Your task to perform on an android device: open chrome privacy settings Image 0: 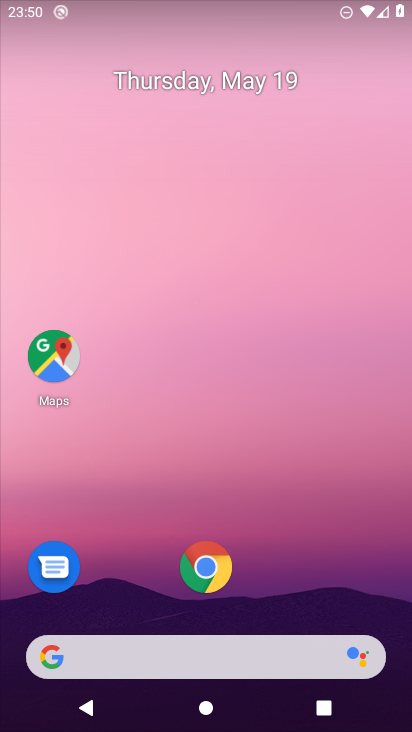
Step 0: drag from (261, 619) to (277, 6)
Your task to perform on an android device: open chrome privacy settings Image 1: 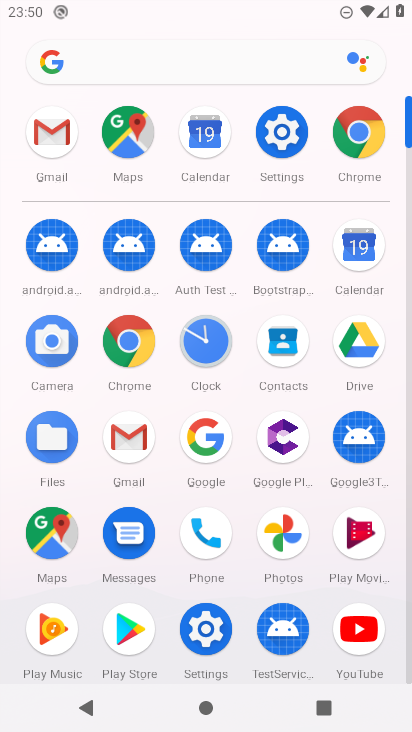
Step 1: click (356, 124)
Your task to perform on an android device: open chrome privacy settings Image 2: 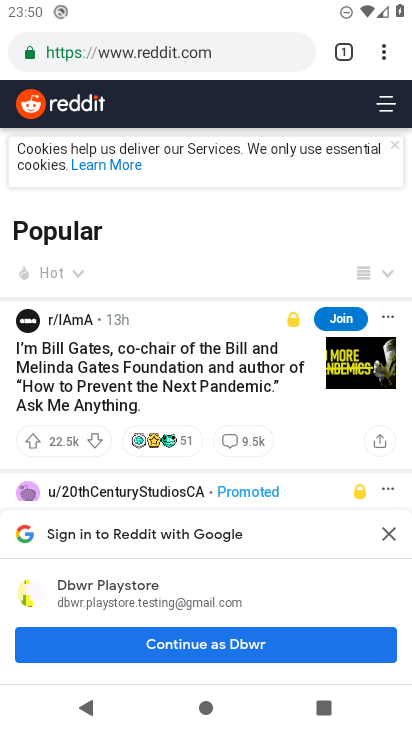
Step 2: click (381, 45)
Your task to perform on an android device: open chrome privacy settings Image 3: 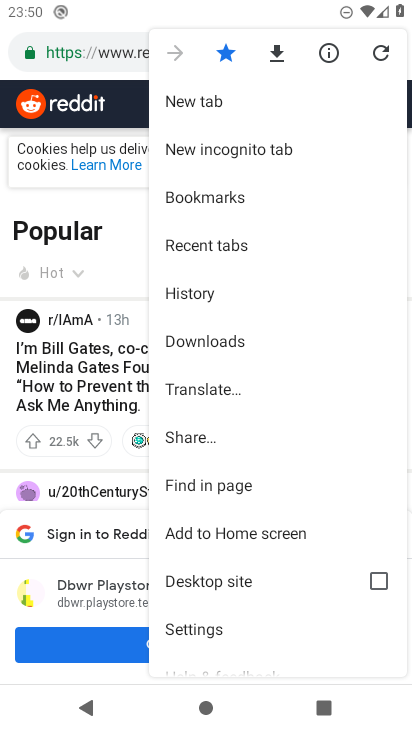
Step 3: drag from (253, 599) to (287, 78)
Your task to perform on an android device: open chrome privacy settings Image 4: 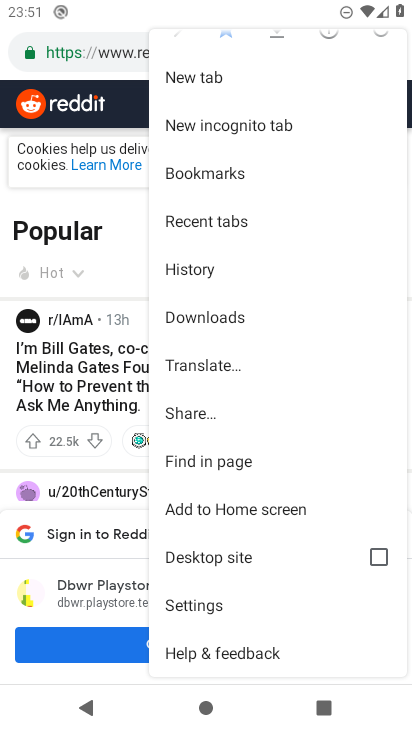
Step 4: click (225, 590)
Your task to perform on an android device: open chrome privacy settings Image 5: 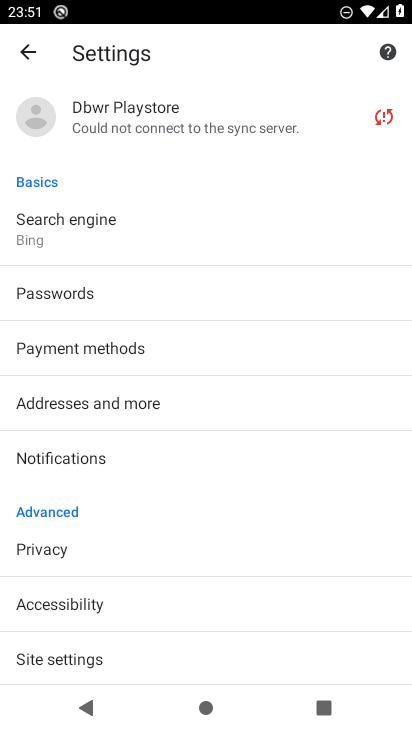
Step 5: click (111, 548)
Your task to perform on an android device: open chrome privacy settings Image 6: 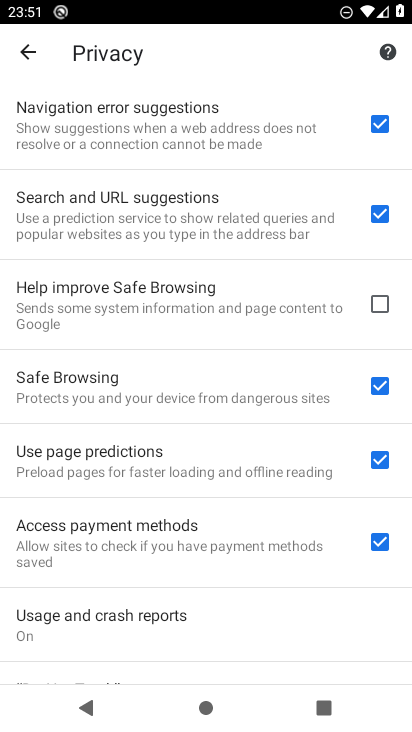
Step 6: task complete